Your task to perform on an android device: change the clock style Image 0: 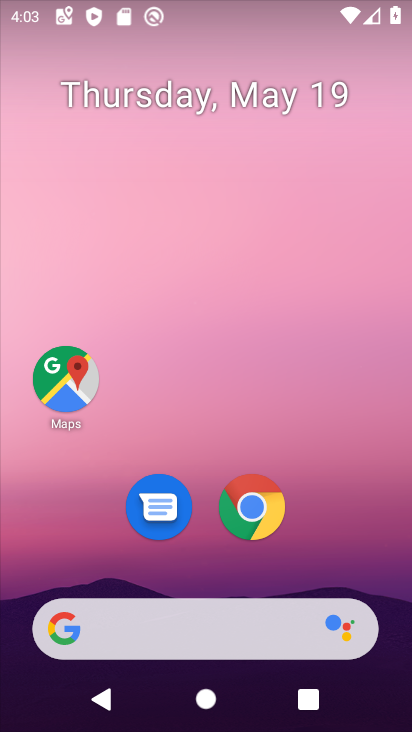
Step 0: drag from (408, 548) to (407, 351)
Your task to perform on an android device: change the clock style Image 1: 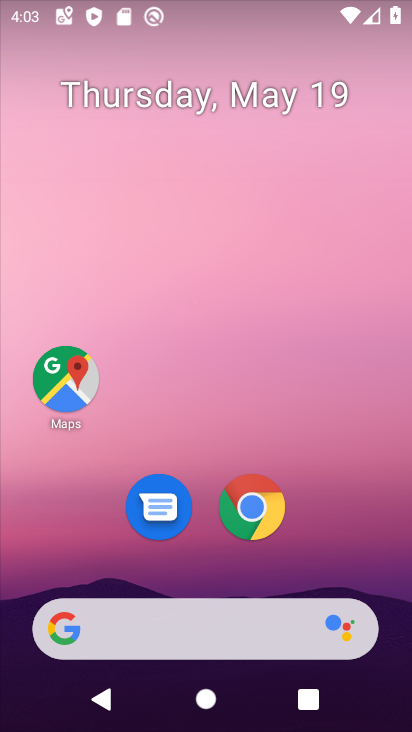
Step 1: drag from (389, 511) to (370, 329)
Your task to perform on an android device: change the clock style Image 2: 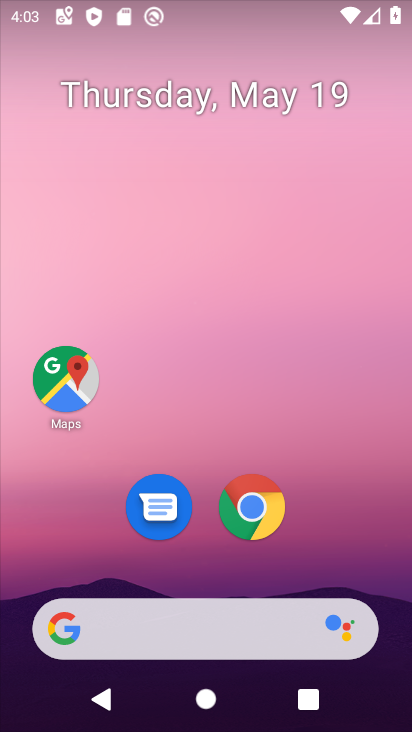
Step 2: drag from (387, 461) to (378, 178)
Your task to perform on an android device: change the clock style Image 3: 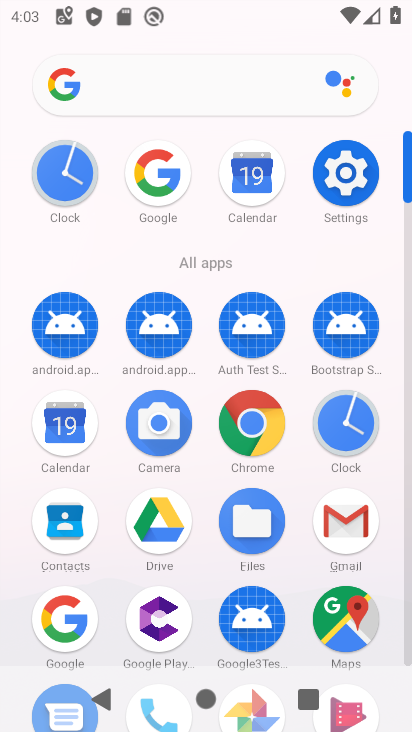
Step 3: click (347, 420)
Your task to perform on an android device: change the clock style Image 4: 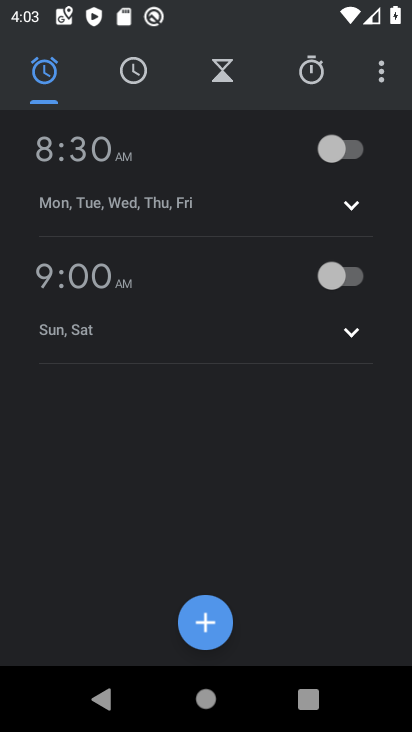
Step 4: click (387, 81)
Your task to perform on an android device: change the clock style Image 5: 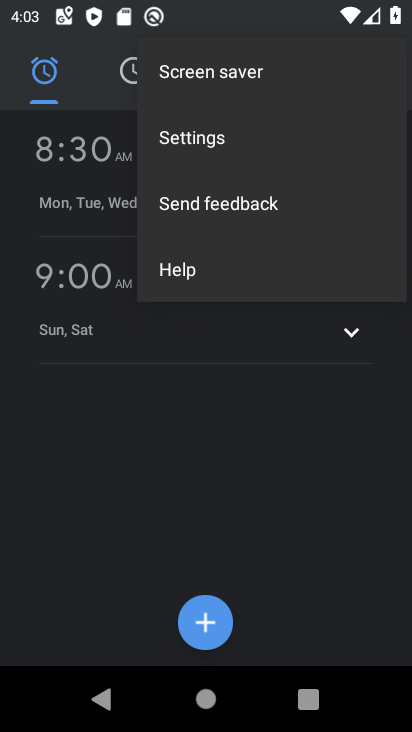
Step 5: click (221, 129)
Your task to perform on an android device: change the clock style Image 6: 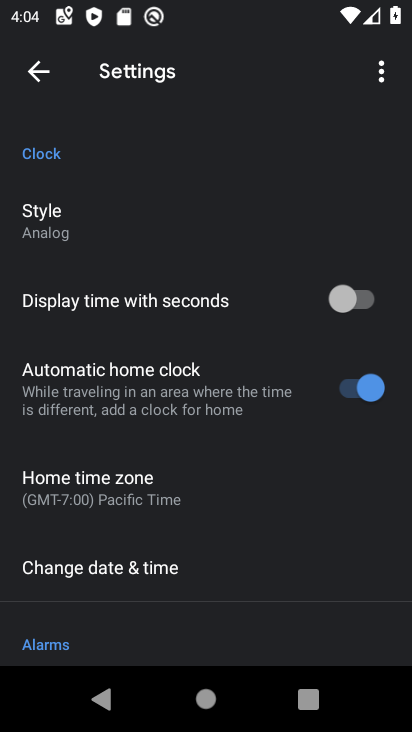
Step 6: task complete